Your task to perform on an android device: allow cookies in the chrome app Image 0: 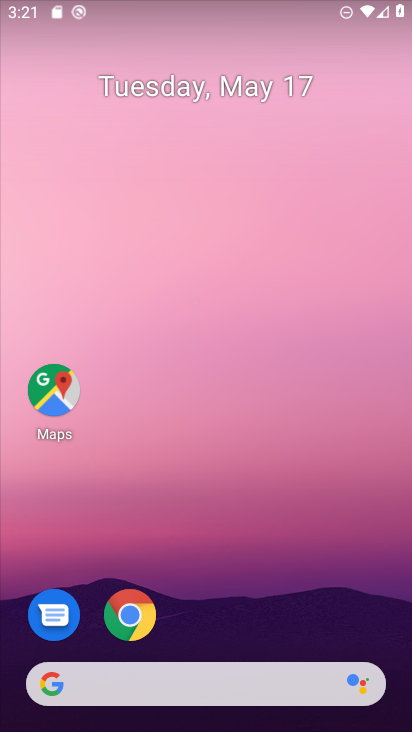
Step 0: click (123, 613)
Your task to perform on an android device: allow cookies in the chrome app Image 1: 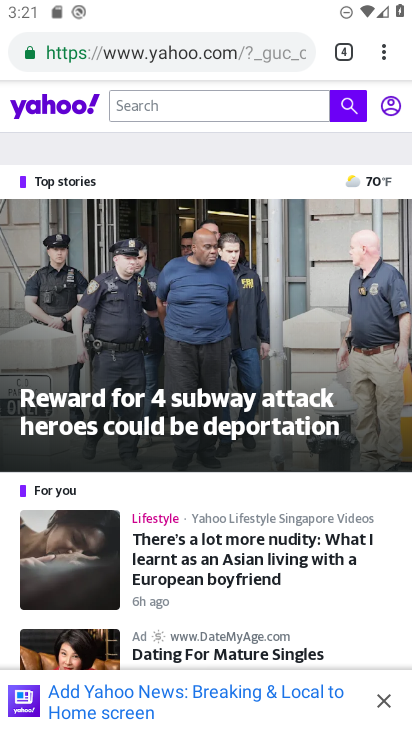
Step 1: click (383, 56)
Your task to perform on an android device: allow cookies in the chrome app Image 2: 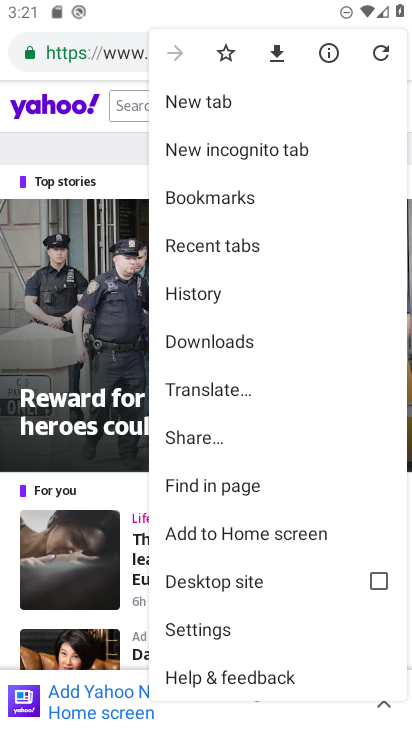
Step 2: click (221, 623)
Your task to perform on an android device: allow cookies in the chrome app Image 3: 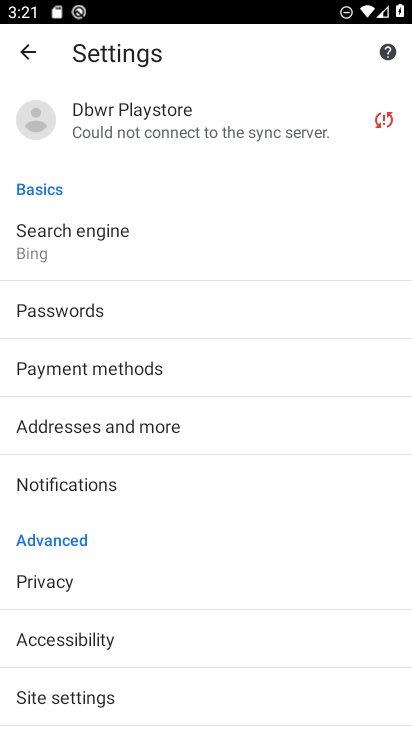
Step 3: drag from (126, 646) to (127, 287)
Your task to perform on an android device: allow cookies in the chrome app Image 4: 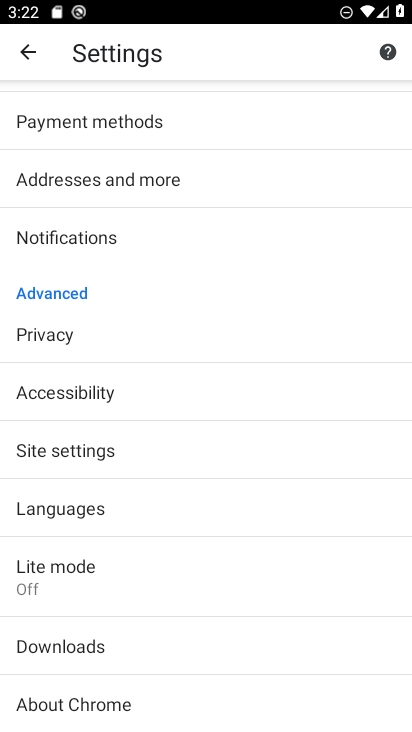
Step 4: click (63, 445)
Your task to perform on an android device: allow cookies in the chrome app Image 5: 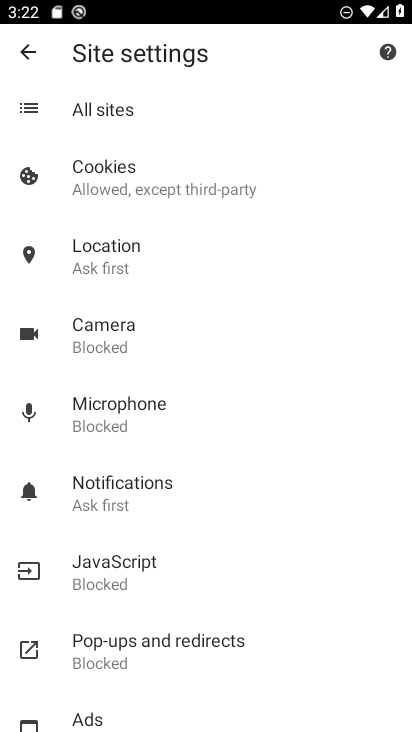
Step 5: click (98, 180)
Your task to perform on an android device: allow cookies in the chrome app Image 6: 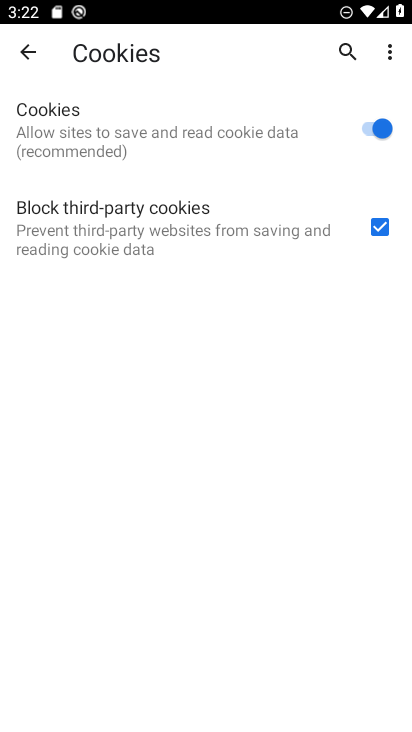
Step 6: task complete